Your task to perform on an android device: turn on translation in the chrome app Image 0: 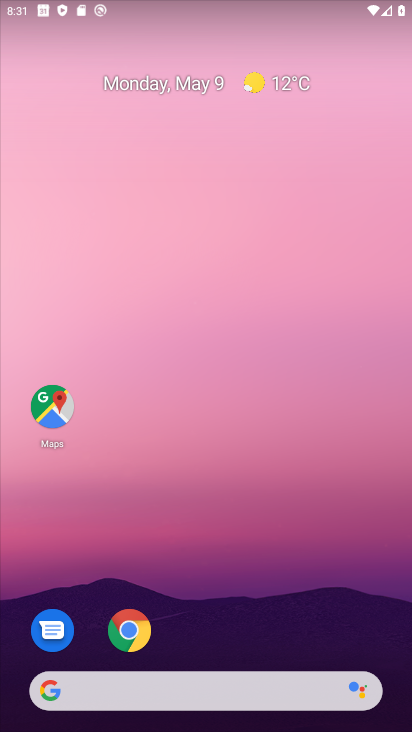
Step 0: click (125, 637)
Your task to perform on an android device: turn on translation in the chrome app Image 1: 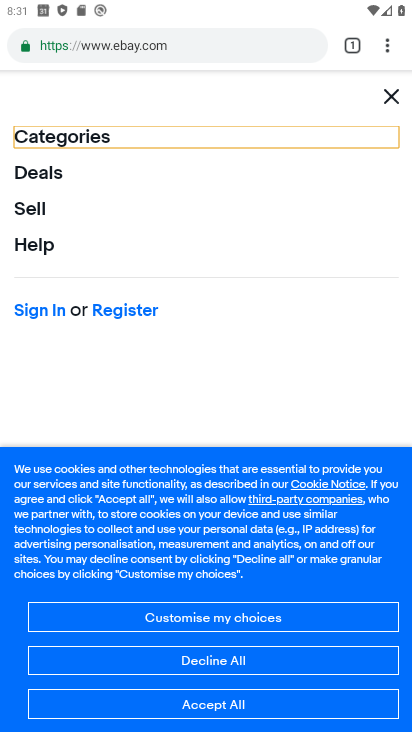
Step 1: click (385, 100)
Your task to perform on an android device: turn on translation in the chrome app Image 2: 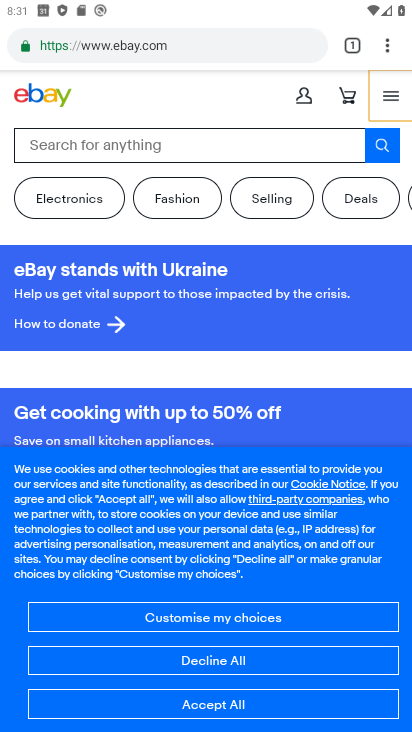
Step 2: click (384, 43)
Your task to perform on an android device: turn on translation in the chrome app Image 3: 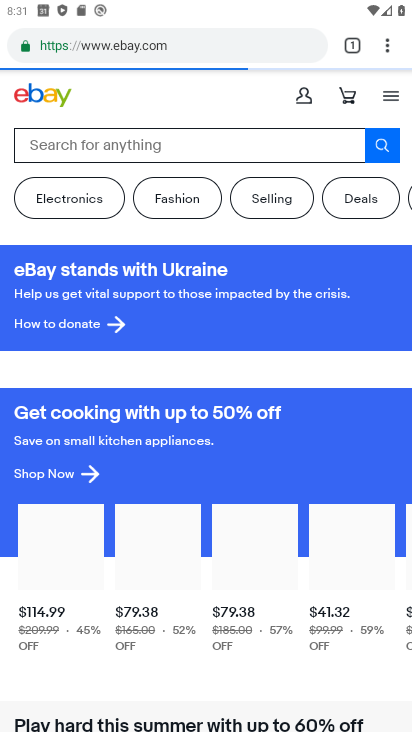
Step 3: click (384, 43)
Your task to perform on an android device: turn on translation in the chrome app Image 4: 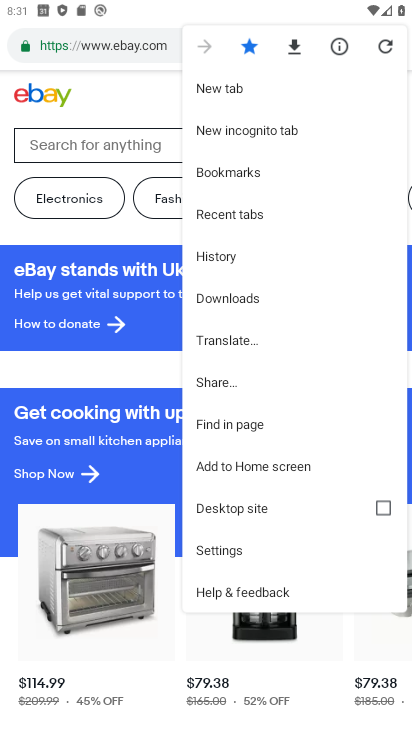
Step 4: click (236, 557)
Your task to perform on an android device: turn on translation in the chrome app Image 5: 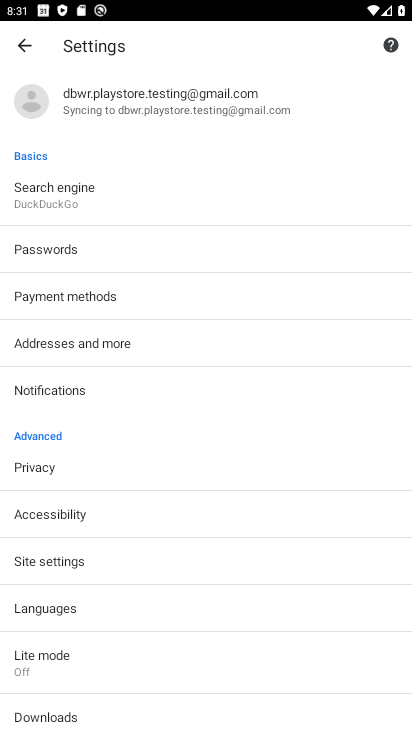
Step 5: click (67, 612)
Your task to perform on an android device: turn on translation in the chrome app Image 6: 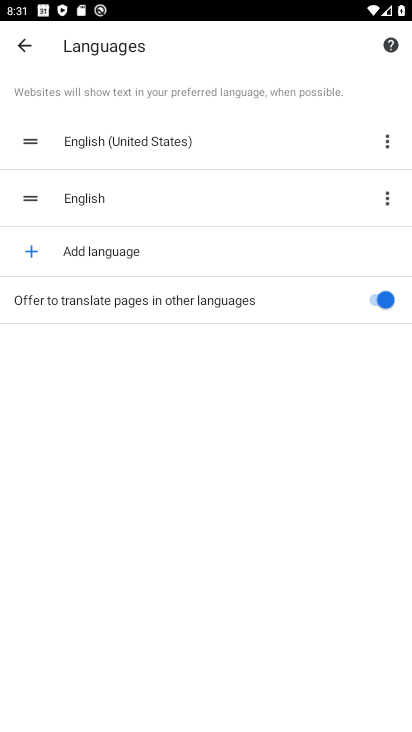
Step 6: task complete